Your task to perform on an android device: Open the stopwatch Image 0: 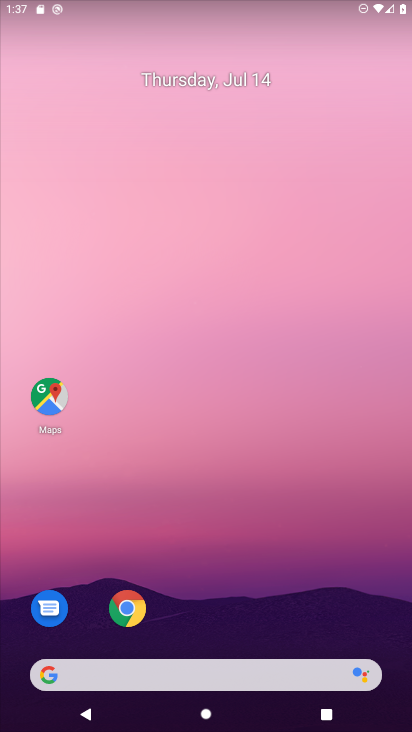
Step 0: drag from (226, 714) to (226, 602)
Your task to perform on an android device: Open the stopwatch Image 1: 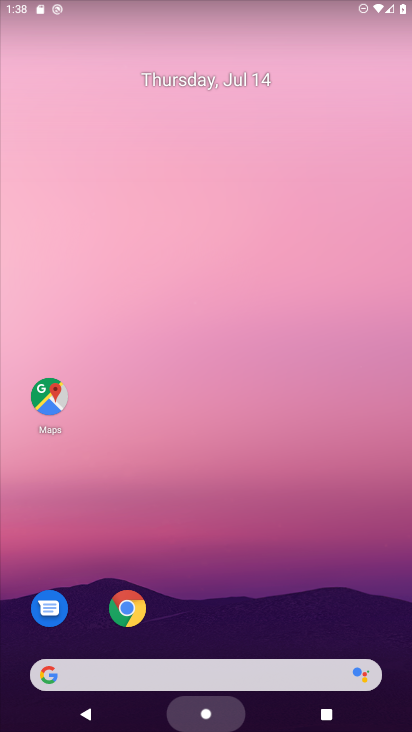
Step 1: drag from (202, 330) to (183, 107)
Your task to perform on an android device: Open the stopwatch Image 2: 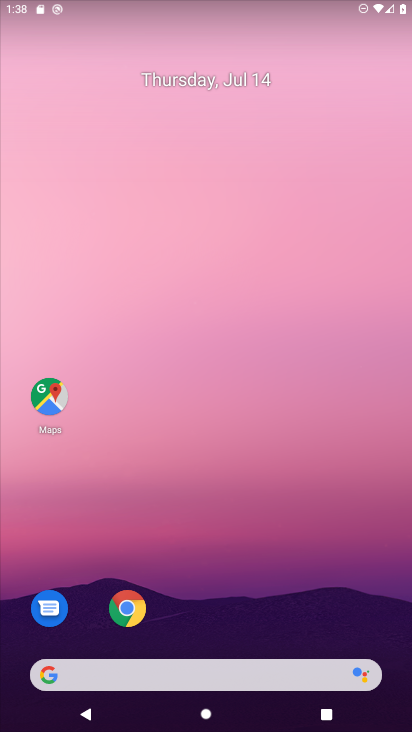
Step 2: drag from (240, 725) to (232, 79)
Your task to perform on an android device: Open the stopwatch Image 3: 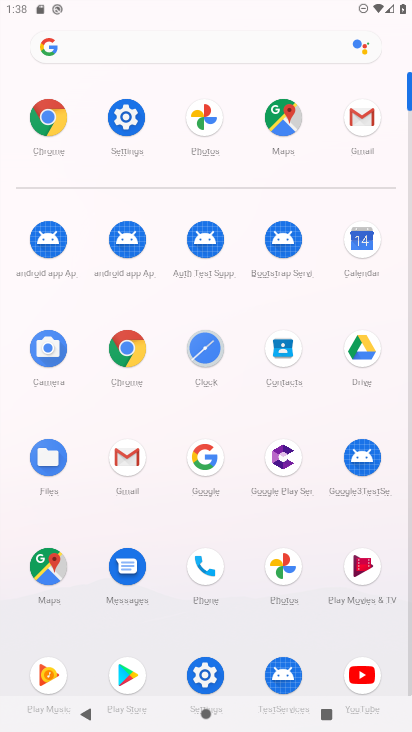
Step 3: click (205, 350)
Your task to perform on an android device: Open the stopwatch Image 4: 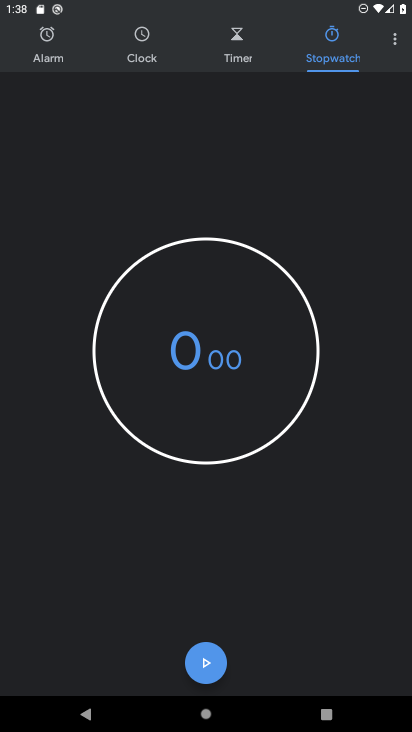
Step 4: task complete